Your task to perform on an android device: install app "Google Play Music" Image 0: 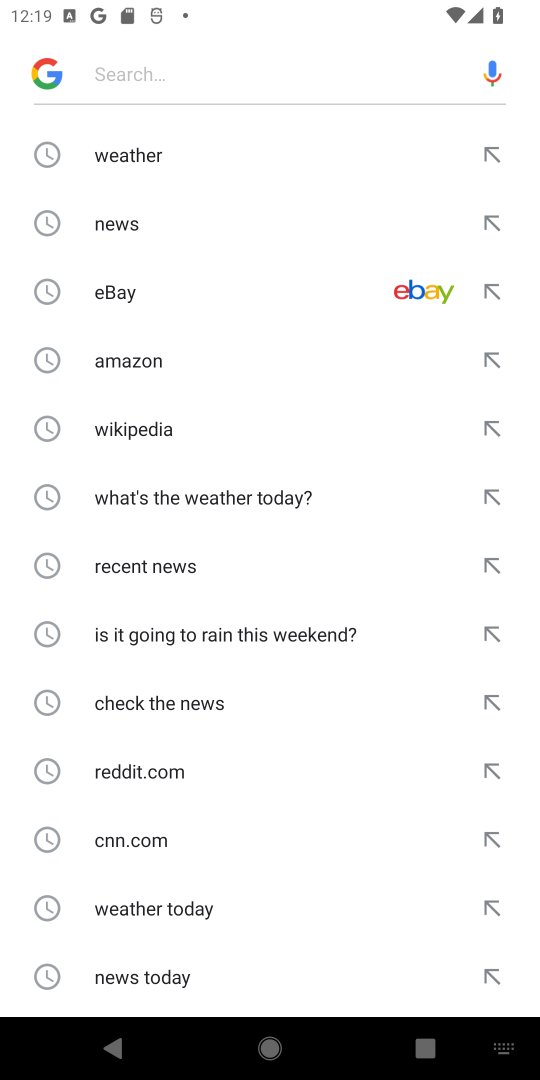
Step 0: press home button
Your task to perform on an android device: install app "Google Play Music" Image 1: 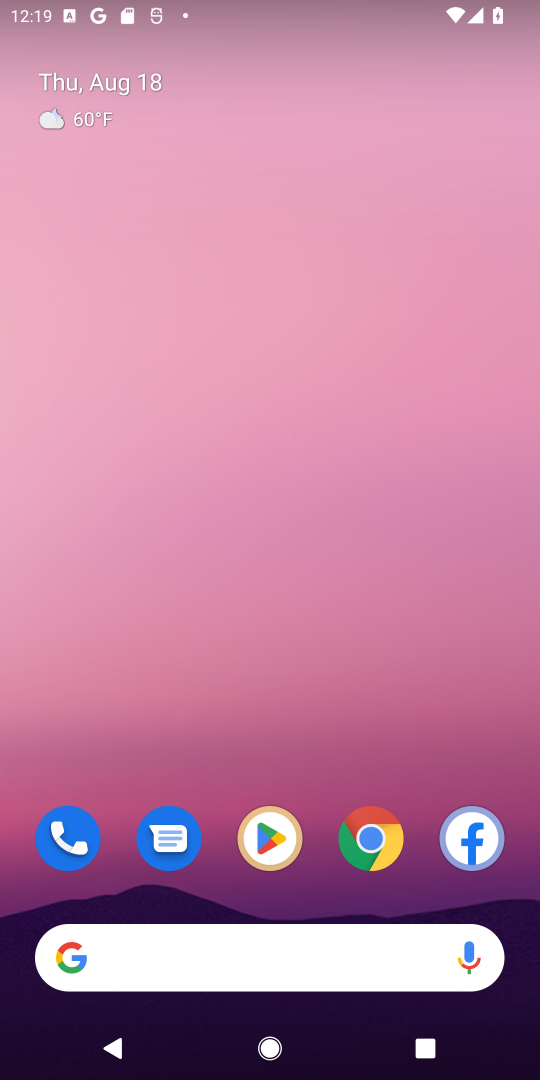
Step 1: click (287, 834)
Your task to perform on an android device: install app "Google Play Music" Image 2: 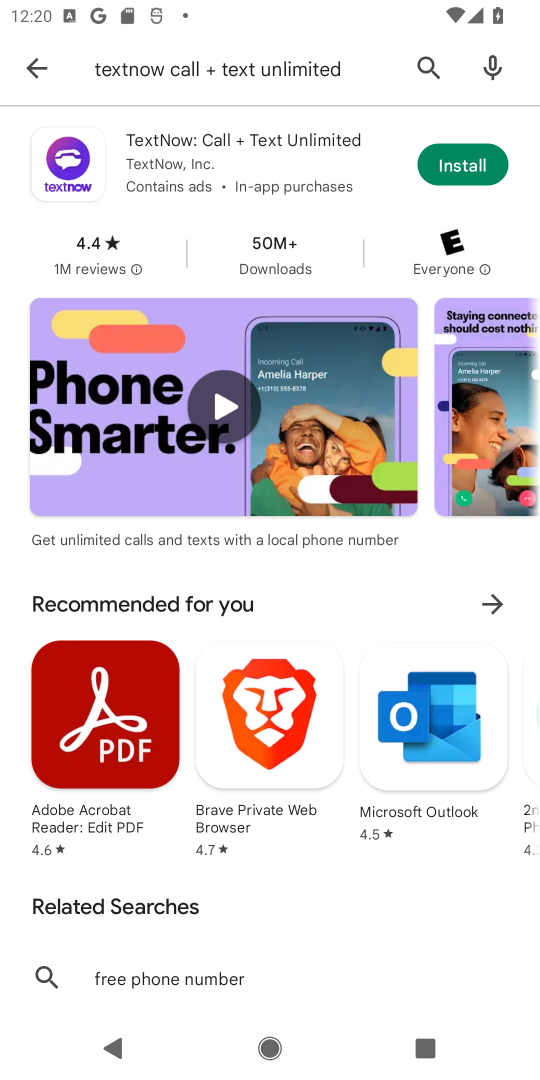
Step 2: click (423, 66)
Your task to perform on an android device: install app "Google Play Music" Image 3: 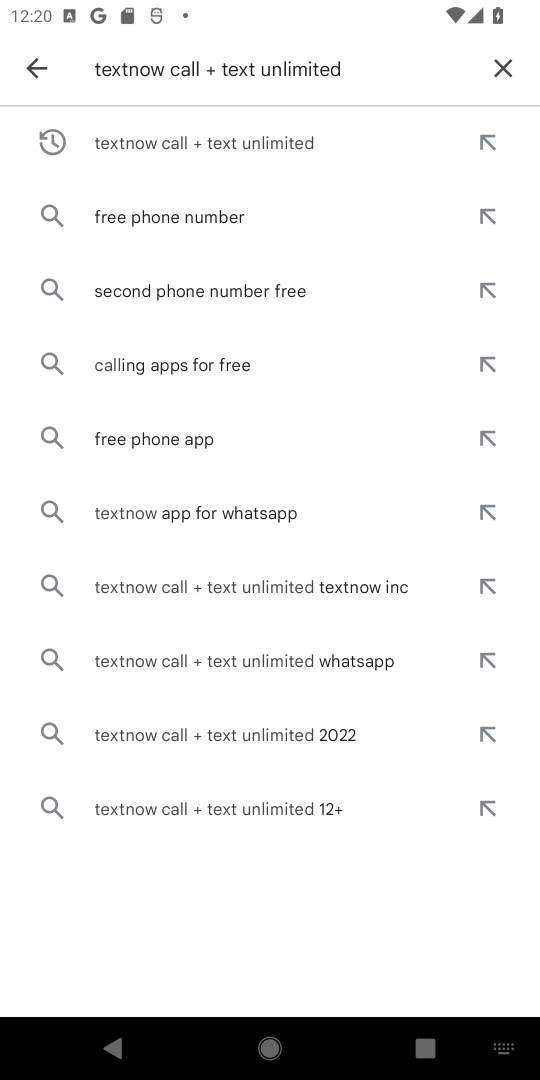
Step 3: click (494, 62)
Your task to perform on an android device: install app "Google Play Music" Image 4: 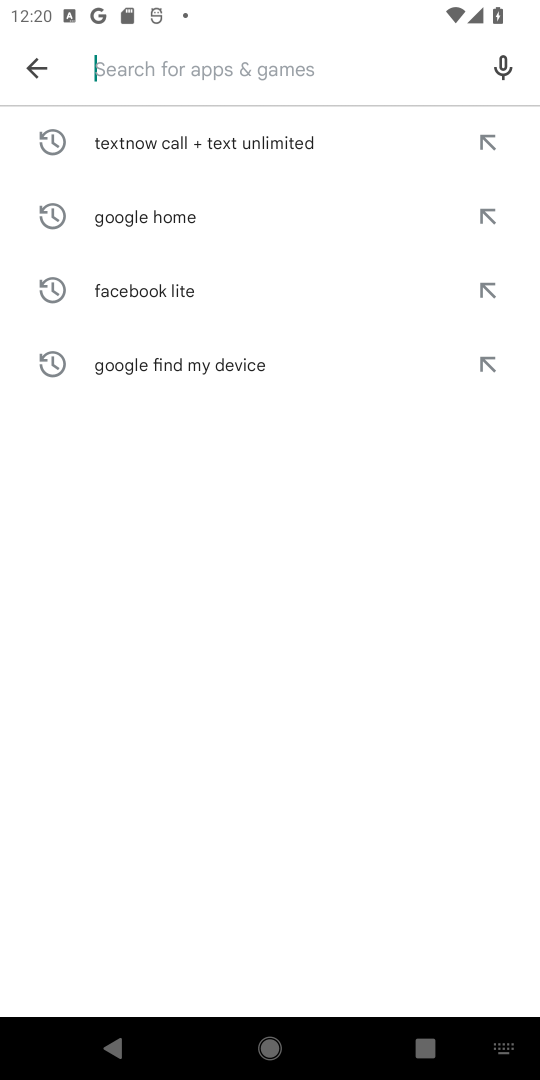
Step 4: type "Google Play Music"
Your task to perform on an android device: install app "Google Play Music" Image 5: 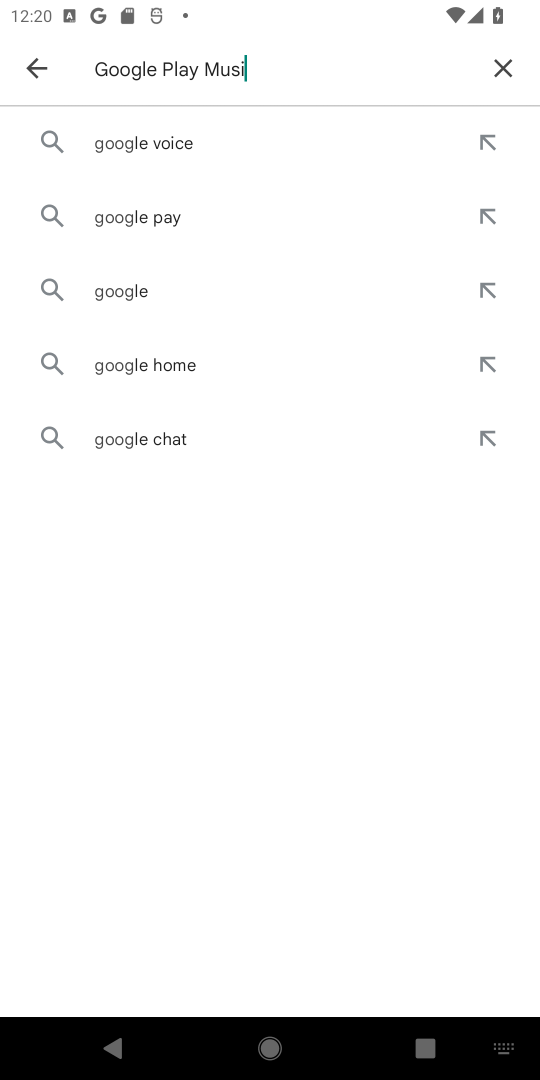
Step 5: type ""
Your task to perform on an android device: install app "Google Play Music" Image 6: 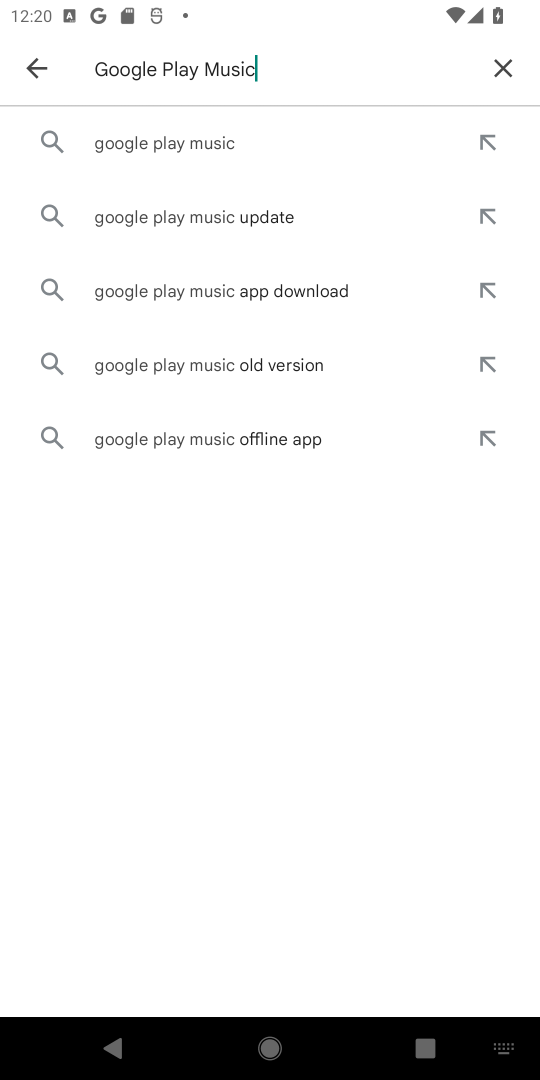
Step 6: click (224, 146)
Your task to perform on an android device: install app "Google Play Music" Image 7: 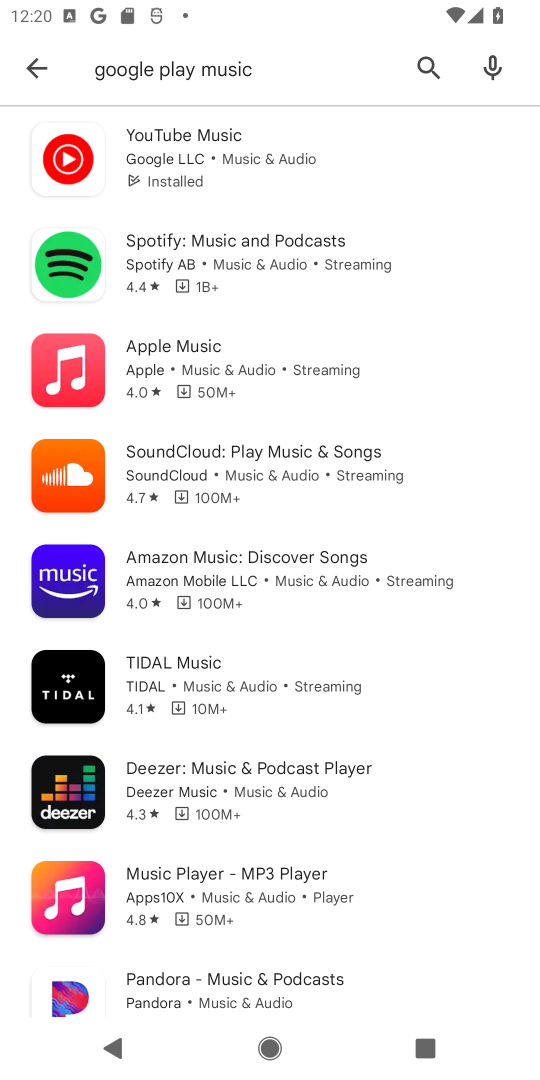
Step 7: task complete